Your task to perform on an android device: Clear the cart on newegg.com. Image 0: 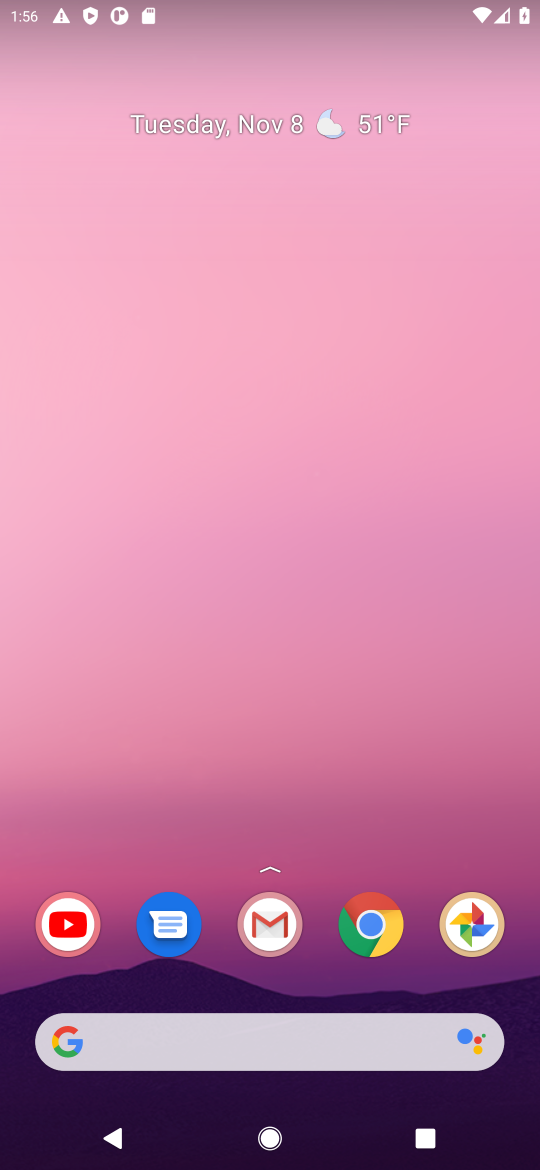
Step 0: click (389, 901)
Your task to perform on an android device: Clear the cart on newegg.com. Image 1: 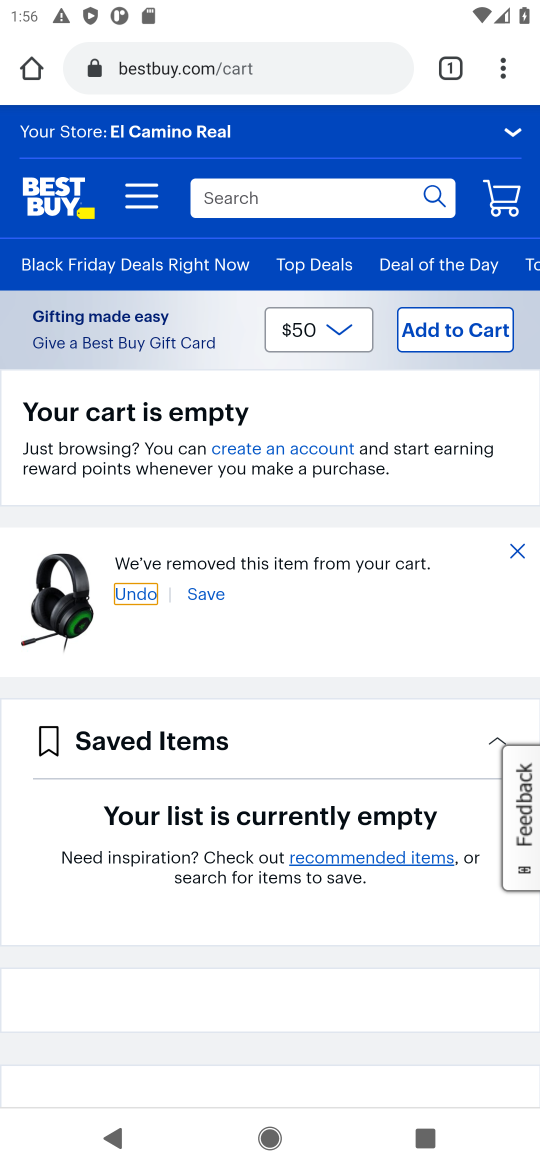
Step 1: click (169, 69)
Your task to perform on an android device: Clear the cart on newegg.com. Image 2: 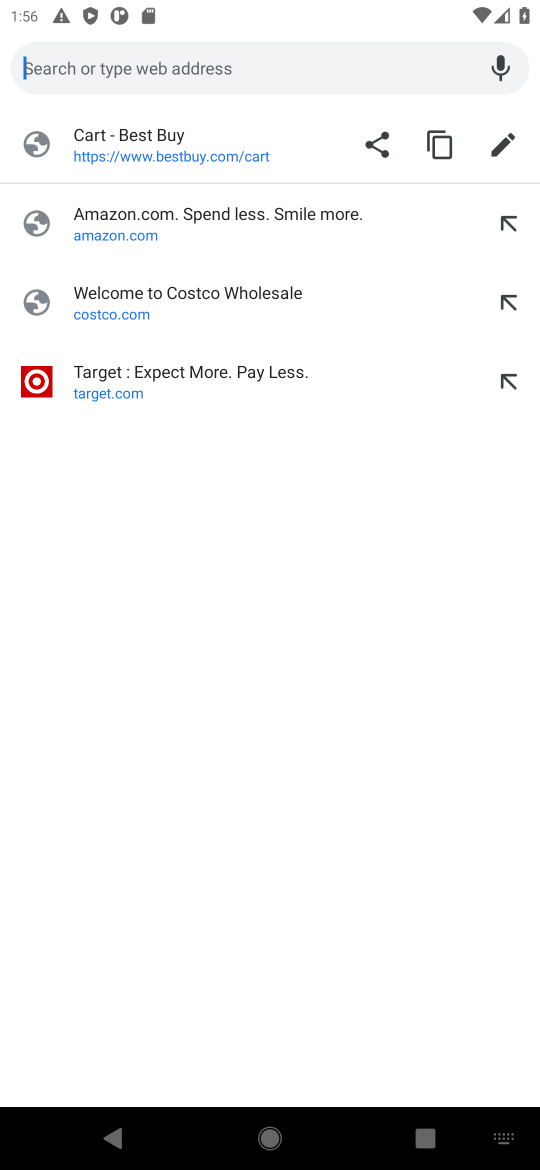
Step 2: type "newegg"
Your task to perform on an android device: Clear the cart on newegg.com. Image 3: 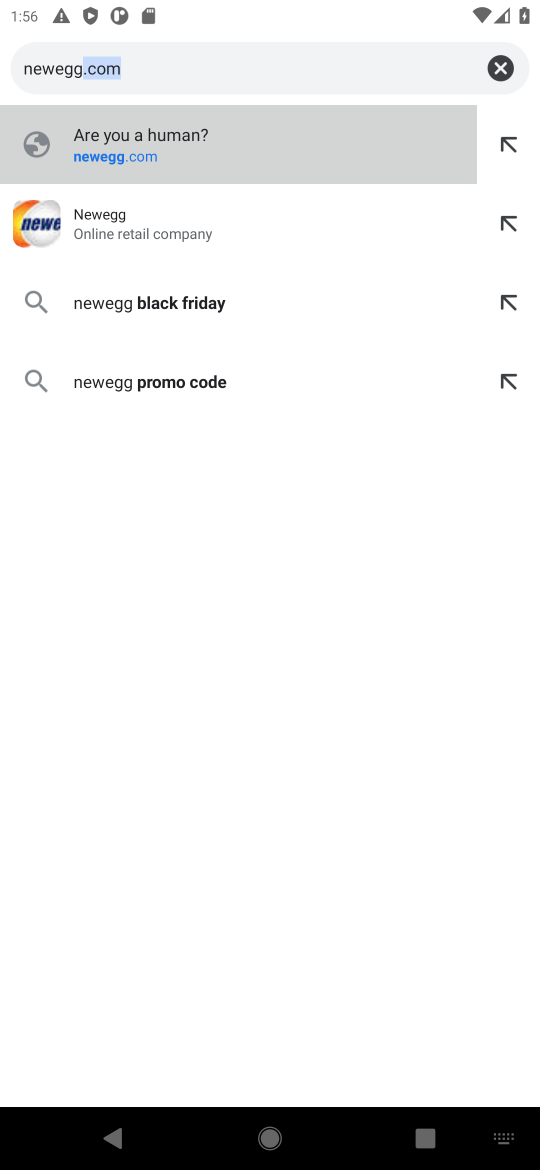
Step 3: click (126, 139)
Your task to perform on an android device: Clear the cart on newegg.com. Image 4: 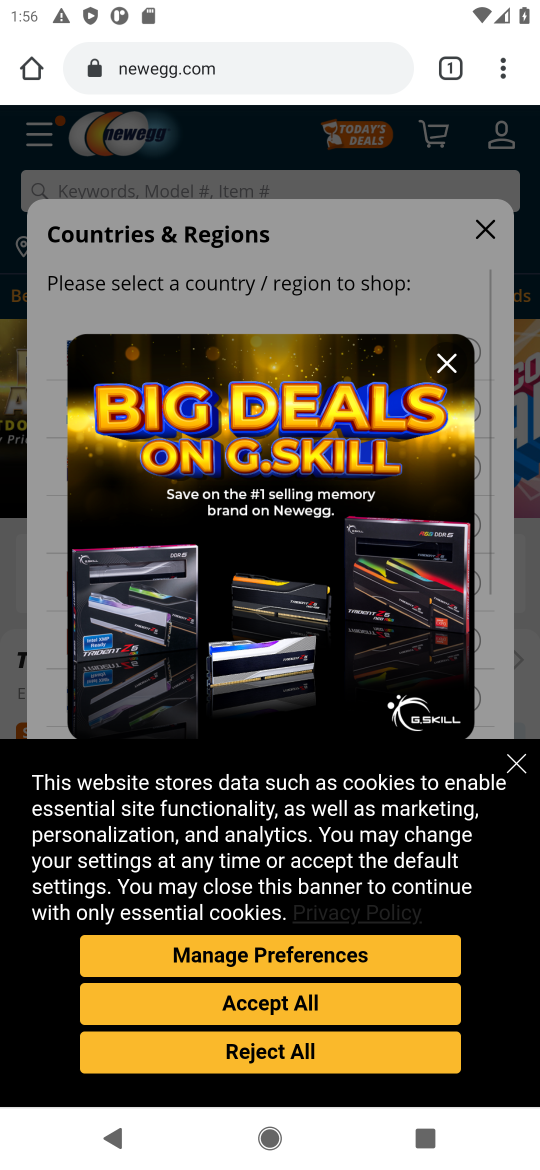
Step 4: click (427, 146)
Your task to perform on an android device: Clear the cart on newegg.com. Image 5: 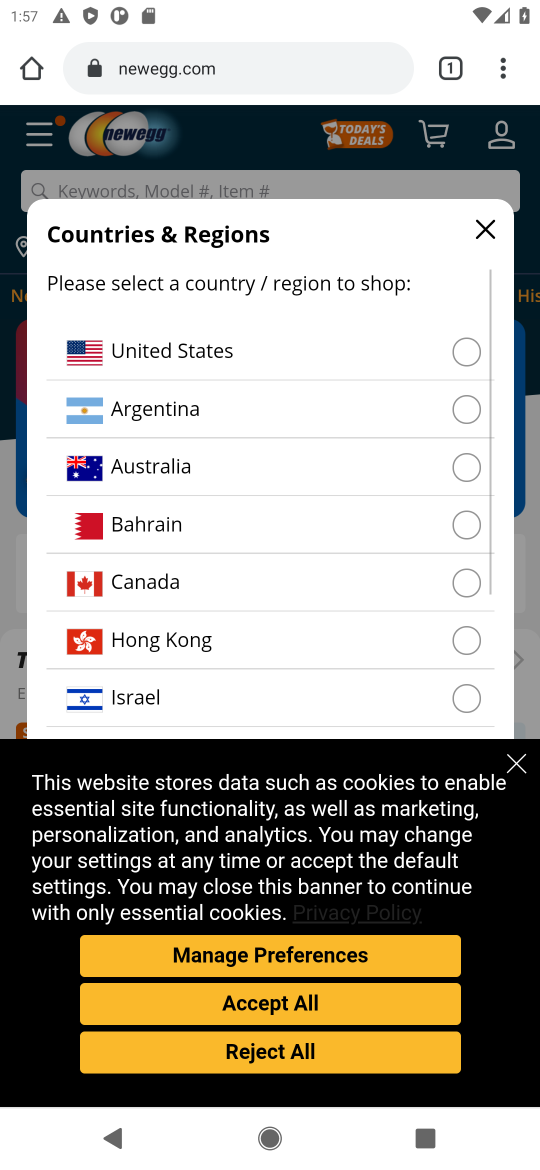
Step 5: click (464, 366)
Your task to perform on an android device: Clear the cart on newegg.com. Image 6: 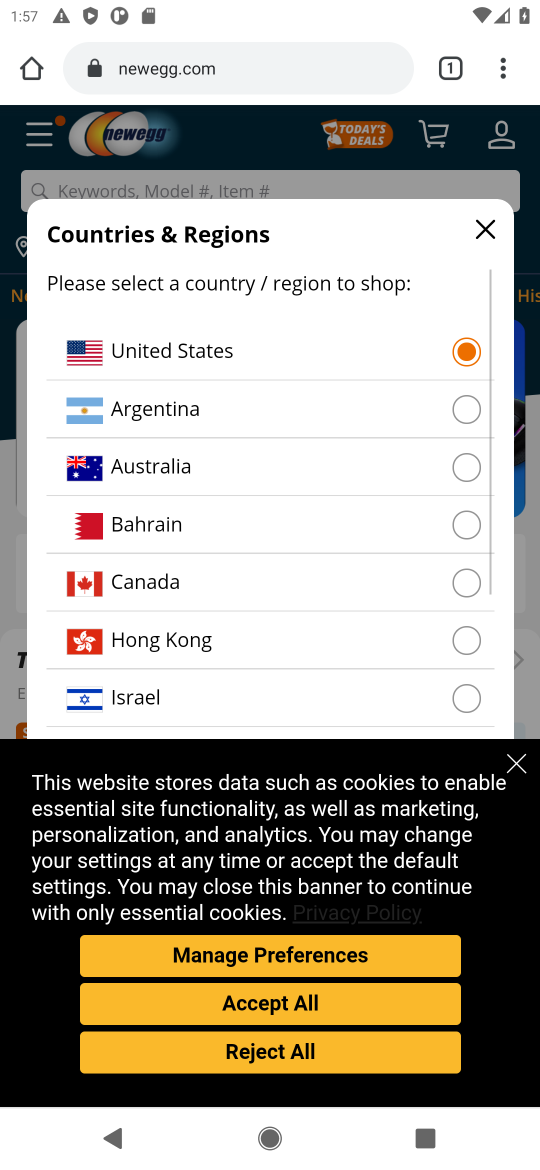
Step 6: click (336, 1001)
Your task to perform on an android device: Clear the cart on newegg.com. Image 7: 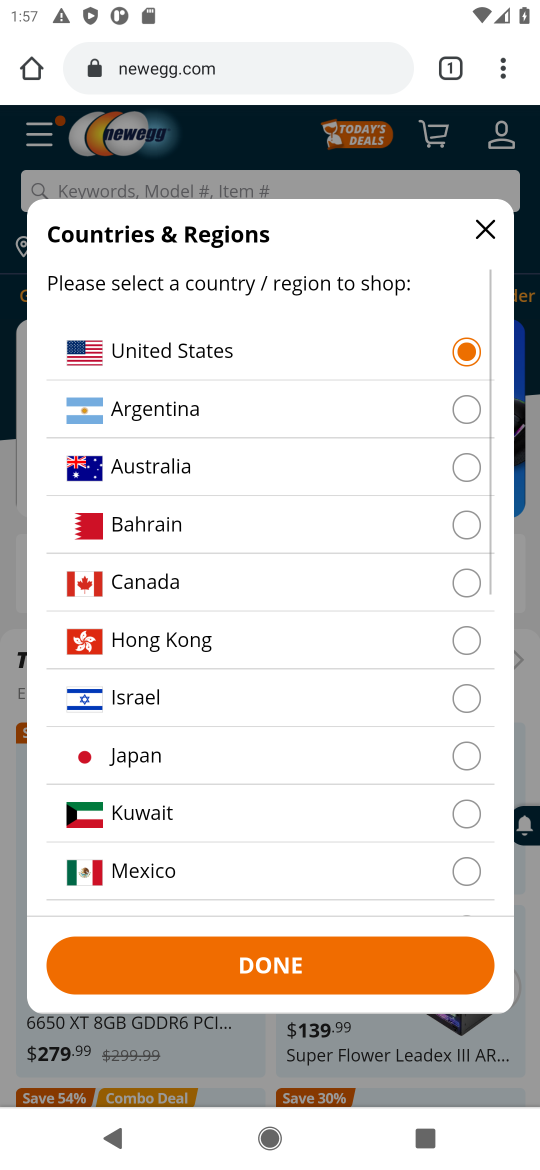
Step 7: click (306, 969)
Your task to perform on an android device: Clear the cart on newegg.com. Image 8: 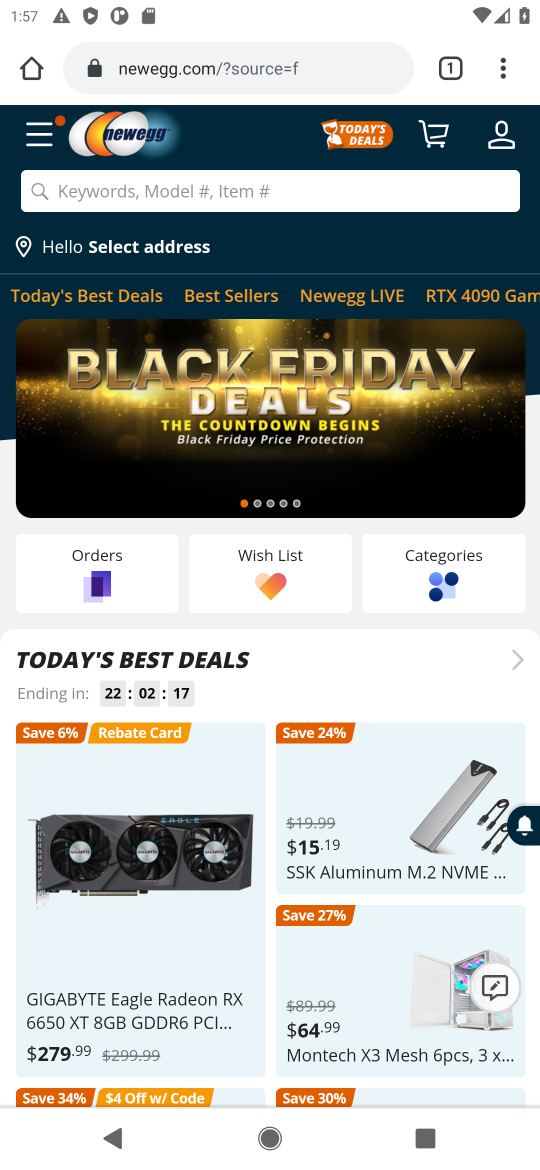
Step 8: click (438, 136)
Your task to perform on an android device: Clear the cart on newegg.com. Image 9: 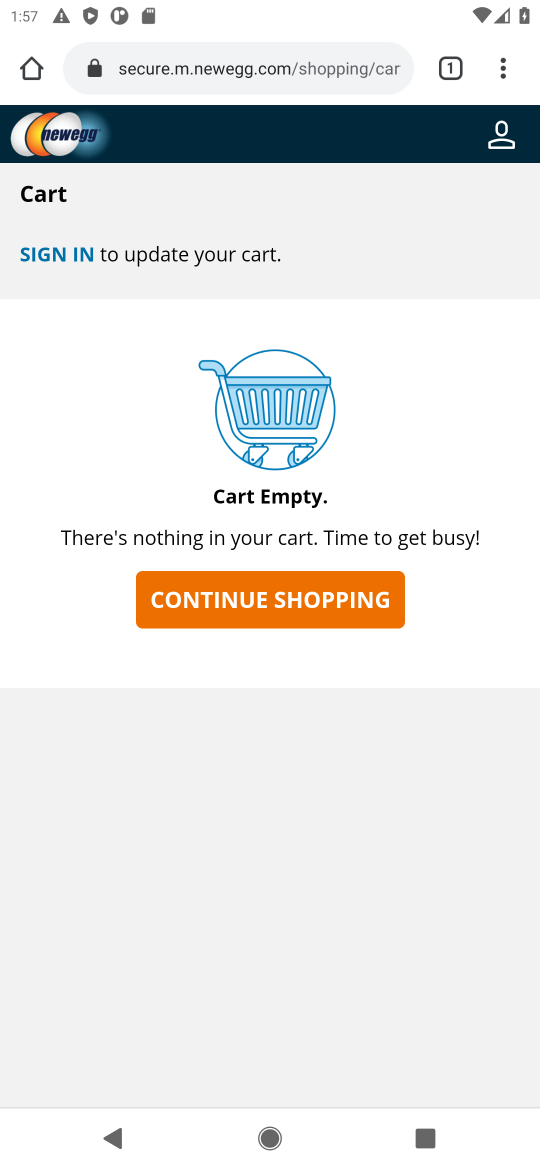
Step 9: task complete